Your task to perform on an android device: Open Maps and search for coffee Image 0: 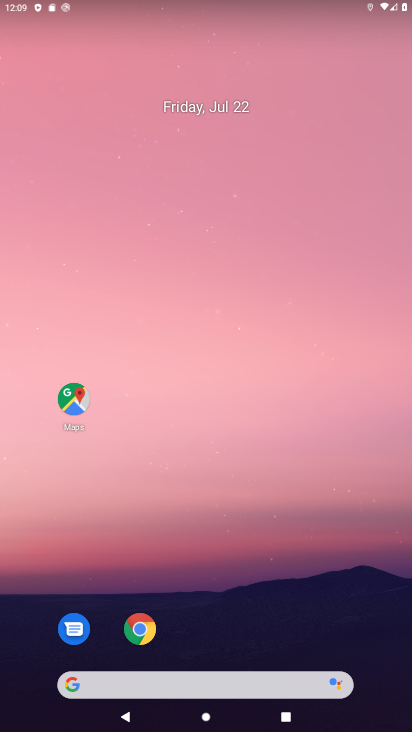
Step 0: click (65, 393)
Your task to perform on an android device: Open Maps and search for coffee Image 1: 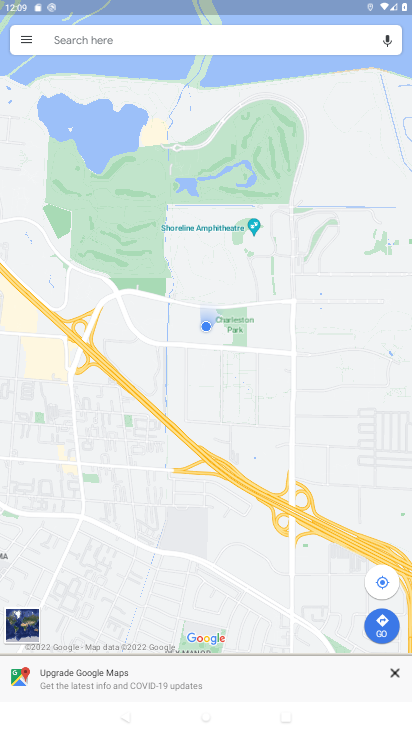
Step 1: click (153, 50)
Your task to perform on an android device: Open Maps and search for coffee Image 2: 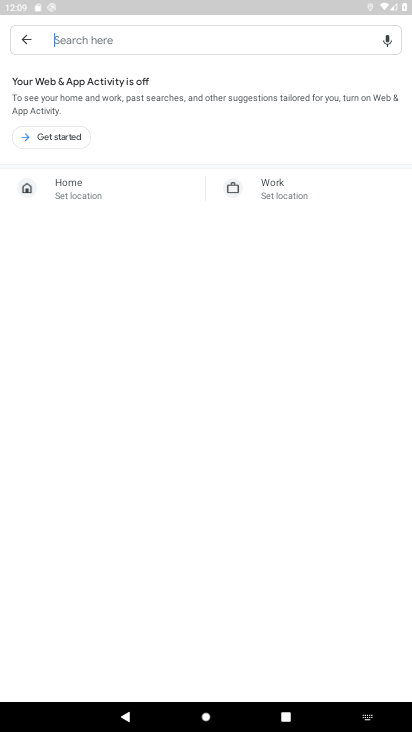
Step 2: type "coffee"
Your task to perform on an android device: Open Maps and search for coffee Image 3: 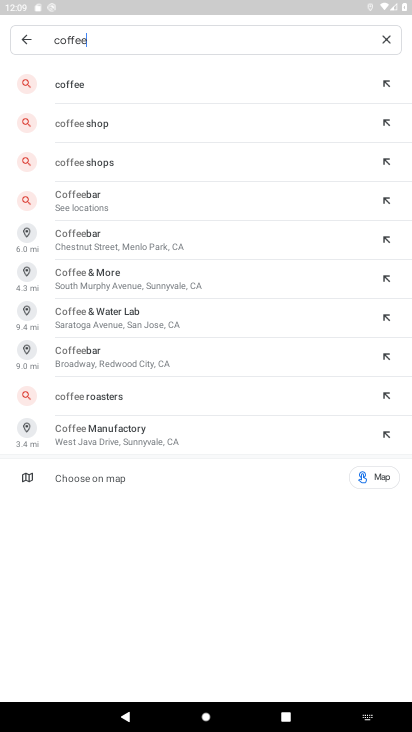
Step 3: click (272, 80)
Your task to perform on an android device: Open Maps and search for coffee Image 4: 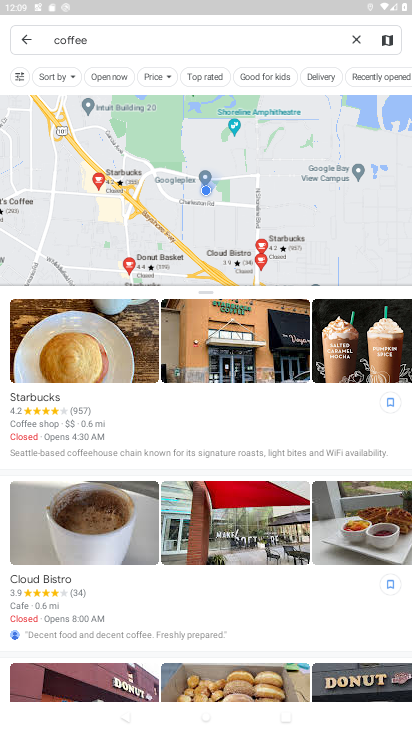
Step 4: task complete